Your task to perform on an android device: toggle airplane mode Image 0: 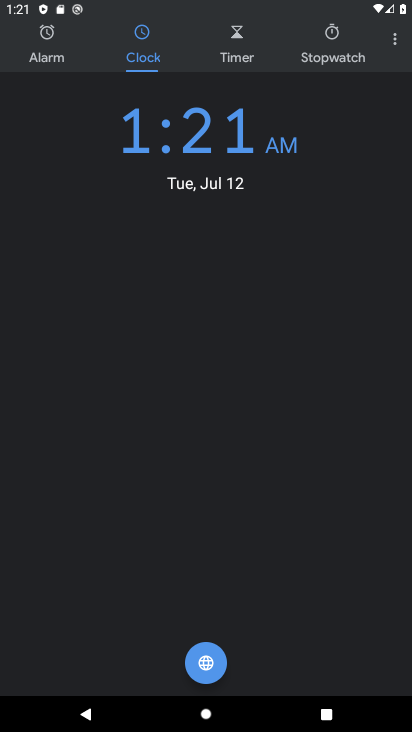
Step 0: press home button
Your task to perform on an android device: toggle airplane mode Image 1: 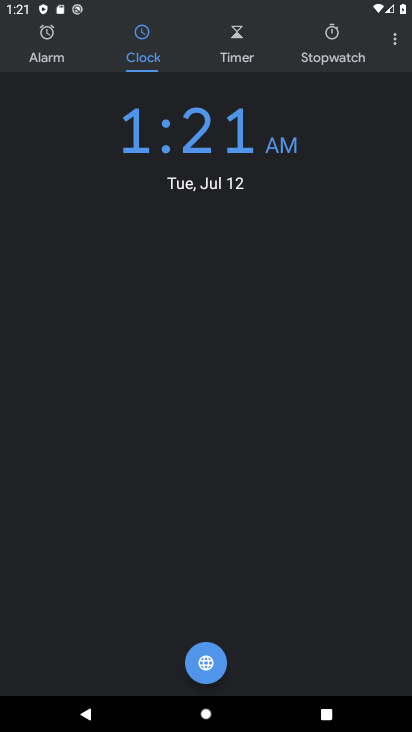
Step 1: press home button
Your task to perform on an android device: toggle airplane mode Image 2: 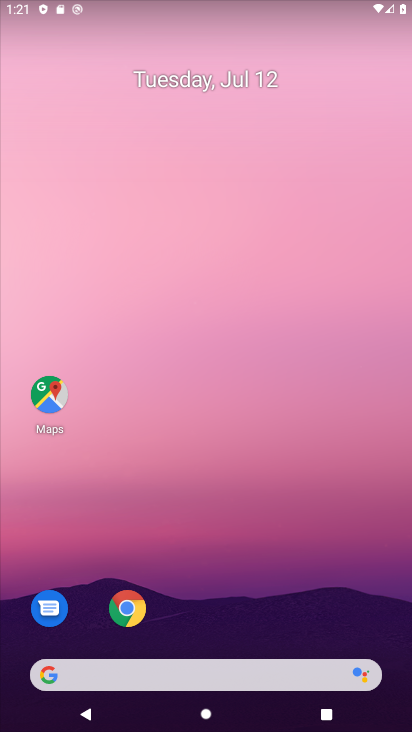
Step 2: drag from (374, 7) to (362, 693)
Your task to perform on an android device: toggle airplane mode Image 3: 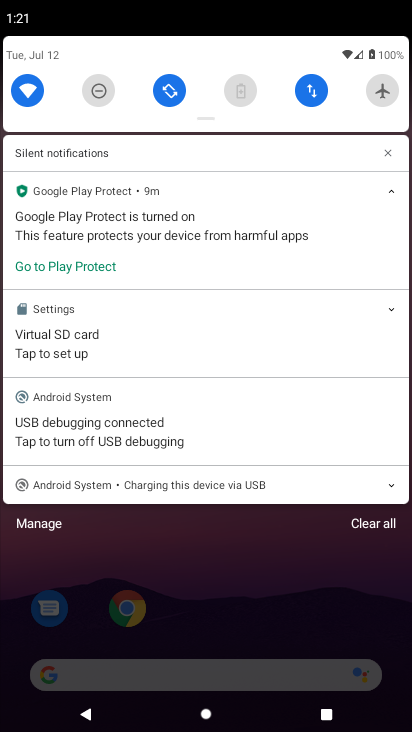
Step 3: drag from (300, 121) to (284, 634)
Your task to perform on an android device: toggle airplane mode Image 4: 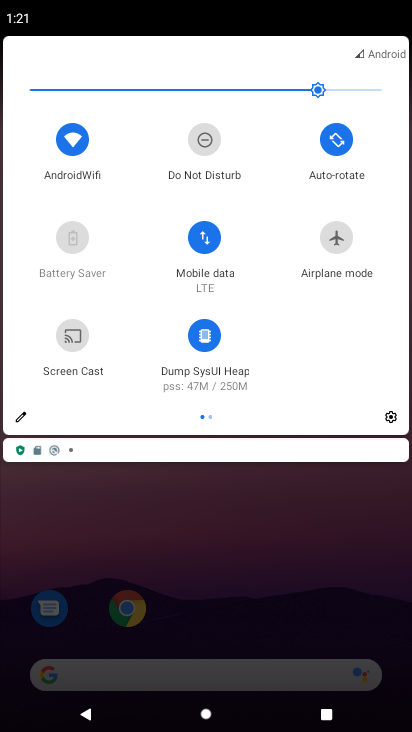
Step 4: click (336, 239)
Your task to perform on an android device: toggle airplane mode Image 5: 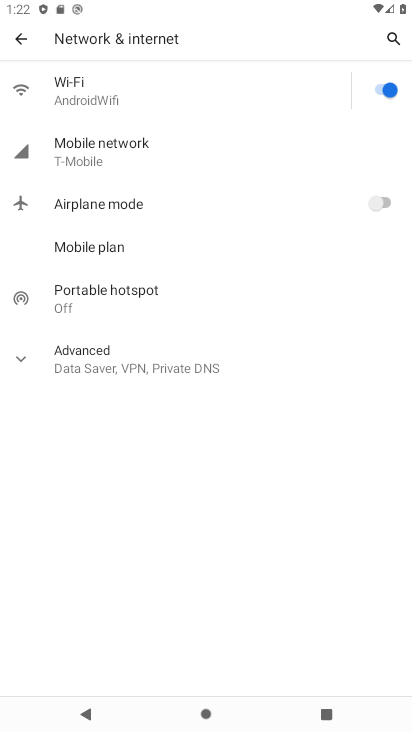
Step 5: press home button
Your task to perform on an android device: toggle airplane mode Image 6: 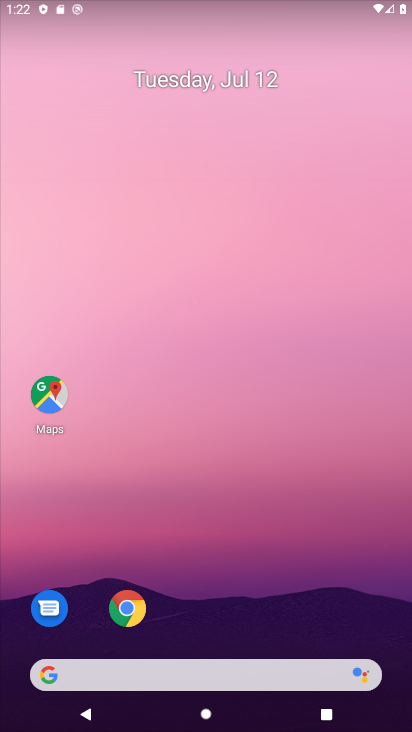
Step 6: drag from (373, 4) to (356, 628)
Your task to perform on an android device: toggle airplane mode Image 7: 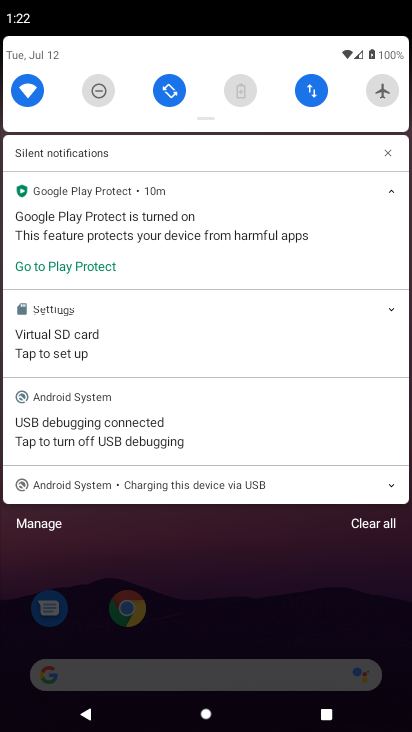
Step 7: click (381, 93)
Your task to perform on an android device: toggle airplane mode Image 8: 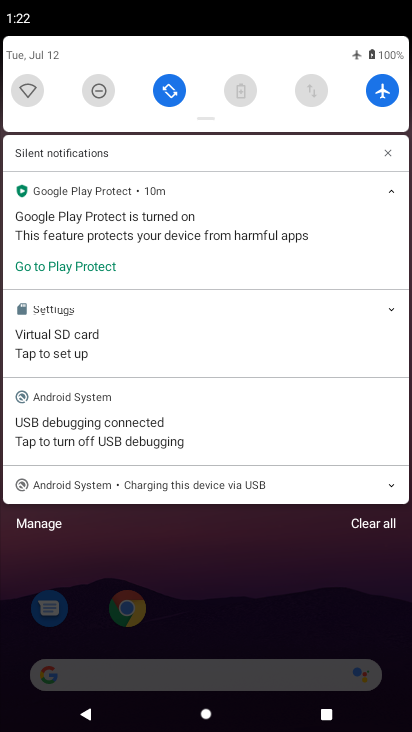
Step 8: task complete